Your task to perform on an android device: turn smart compose on in the gmail app Image 0: 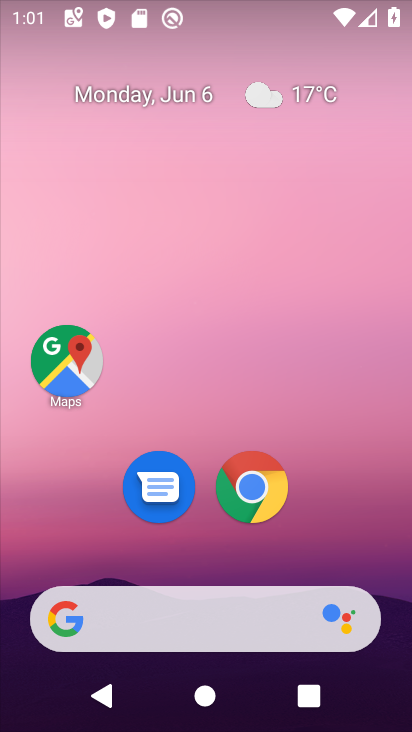
Step 0: drag from (83, 568) to (195, 67)
Your task to perform on an android device: turn smart compose on in the gmail app Image 1: 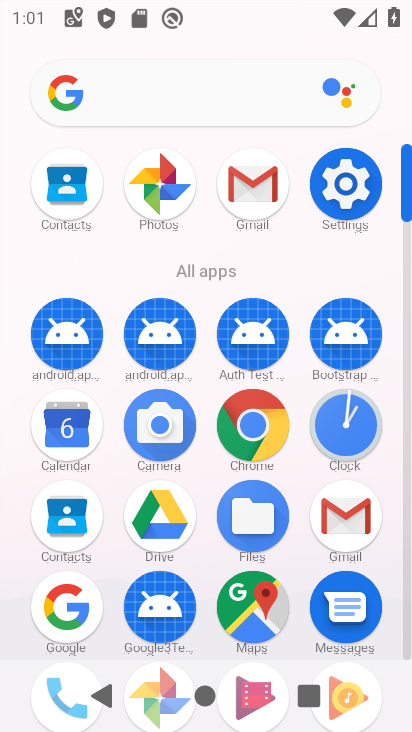
Step 1: click (352, 529)
Your task to perform on an android device: turn smart compose on in the gmail app Image 2: 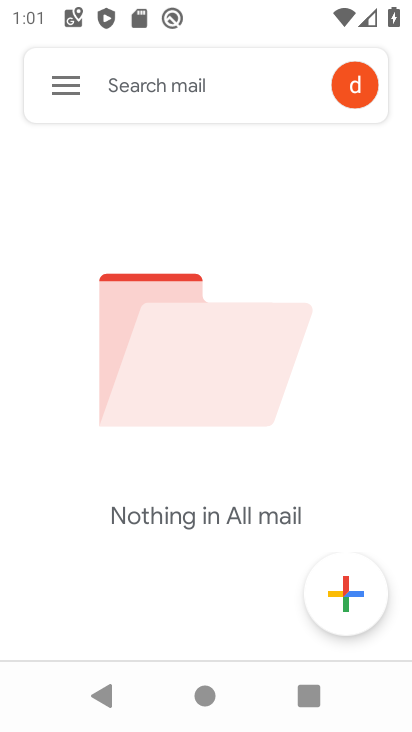
Step 2: click (82, 88)
Your task to perform on an android device: turn smart compose on in the gmail app Image 3: 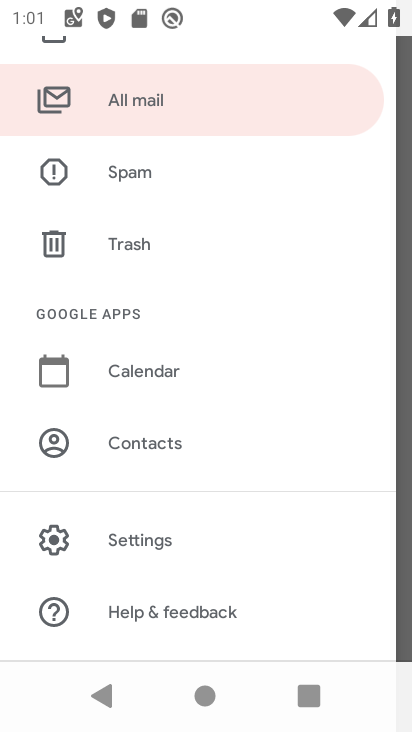
Step 3: click (182, 556)
Your task to perform on an android device: turn smart compose on in the gmail app Image 4: 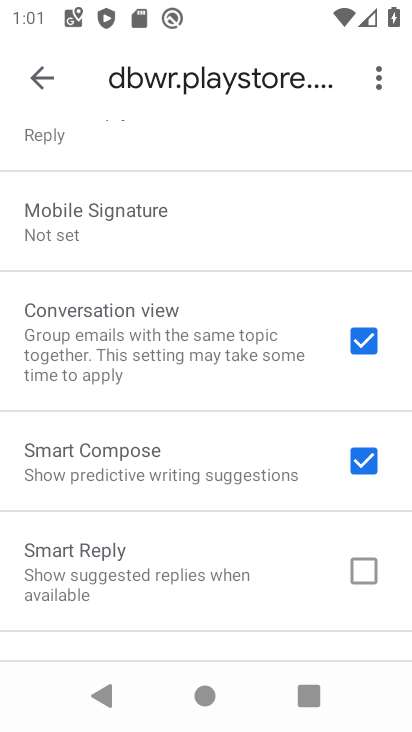
Step 4: task complete